Your task to perform on an android device: make emails show in primary in the gmail app Image 0: 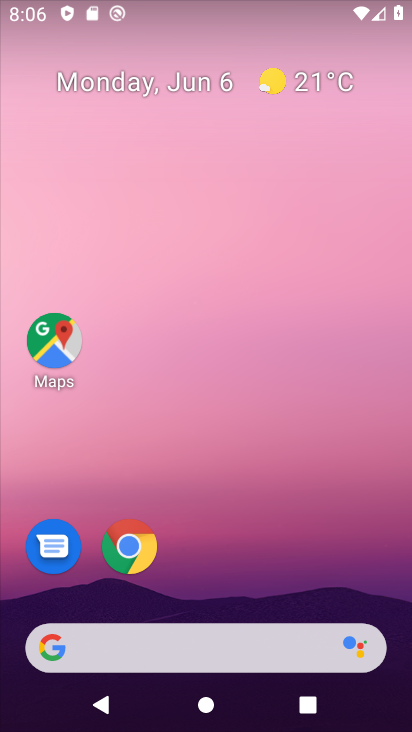
Step 0: drag from (281, 551) to (303, 52)
Your task to perform on an android device: make emails show in primary in the gmail app Image 1: 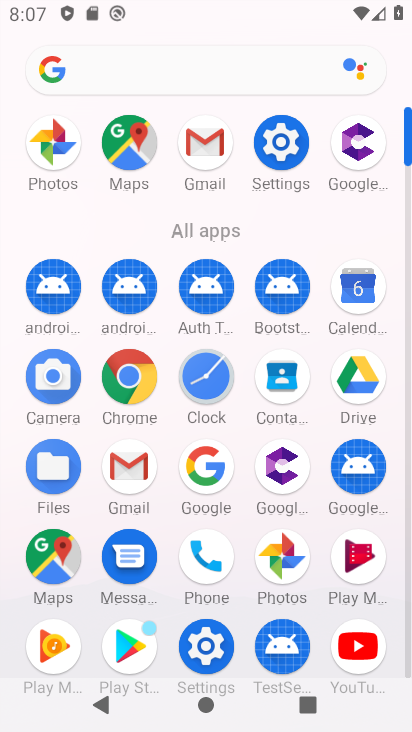
Step 1: task complete